Your task to perform on an android device: Go to Amazon Image 0: 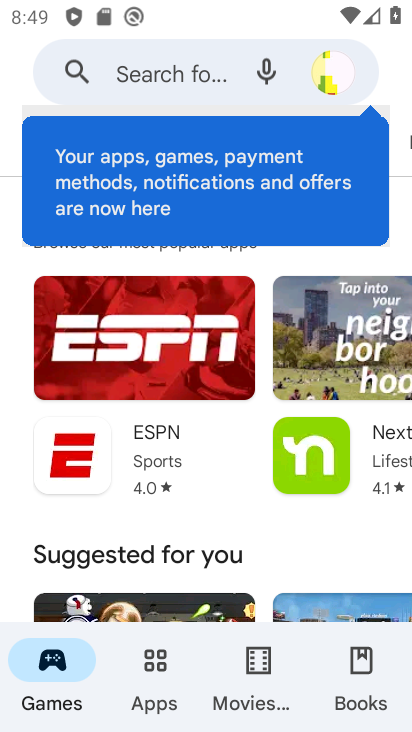
Step 0: press home button
Your task to perform on an android device: Go to Amazon Image 1: 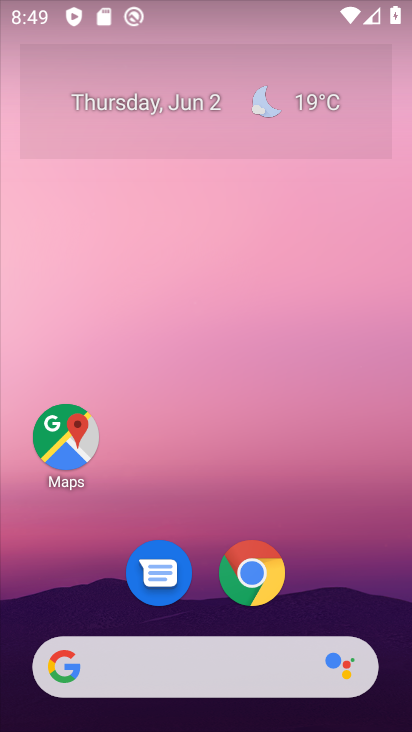
Step 1: click (248, 566)
Your task to perform on an android device: Go to Amazon Image 2: 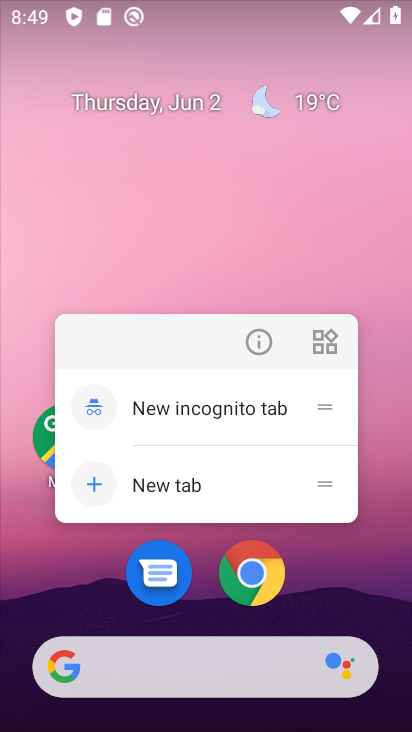
Step 2: click (262, 595)
Your task to perform on an android device: Go to Amazon Image 3: 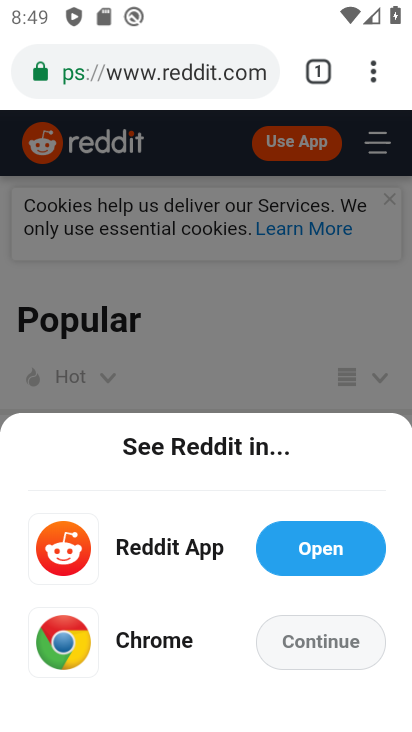
Step 3: click (157, 81)
Your task to perform on an android device: Go to Amazon Image 4: 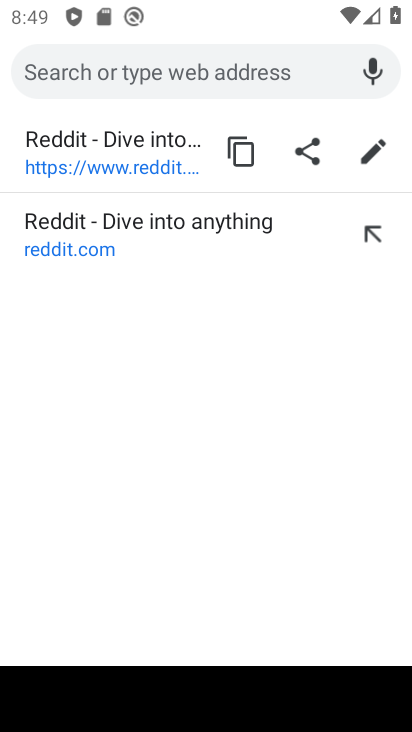
Step 4: type "amazon"
Your task to perform on an android device: Go to Amazon Image 5: 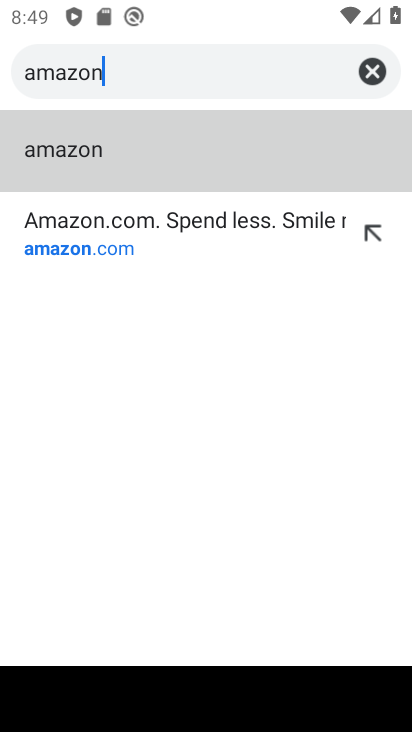
Step 5: click (55, 154)
Your task to perform on an android device: Go to Amazon Image 6: 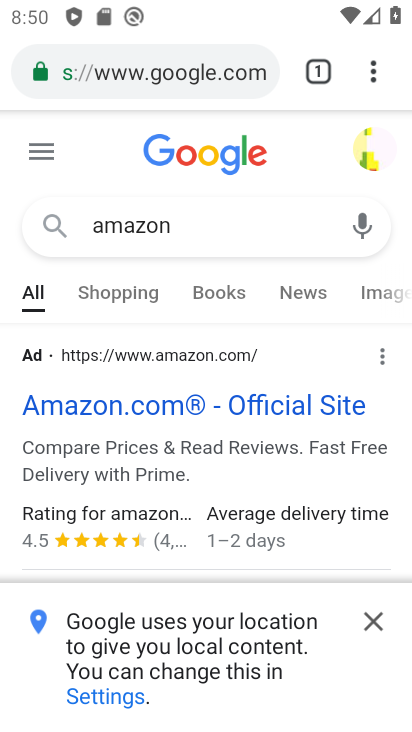
Step 6: click (119, 407)
Your task to perform on an android device: Go to Amazon Image 7: 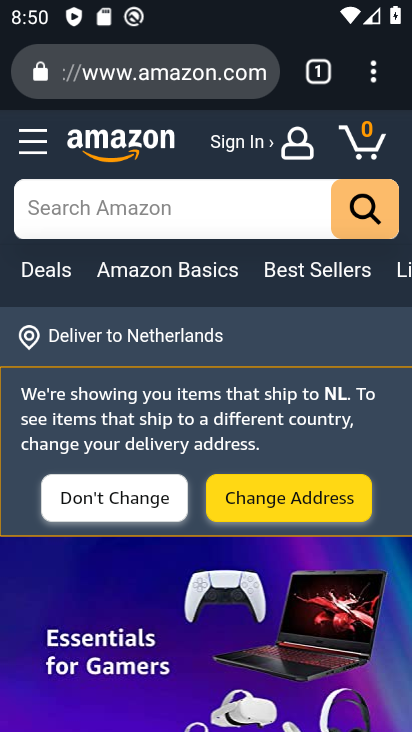
Step 7: task complete